Your task to perform on an android device: Go to CNN.com Image 0: 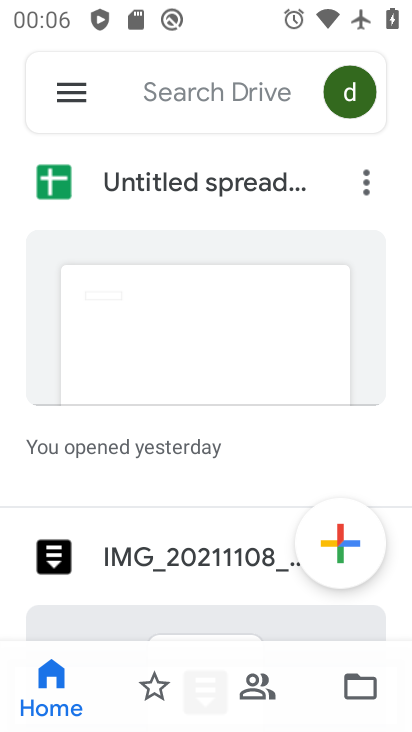
Step 0: press home button
Your task to perform on an android device: Go to CNN.com Image 1: 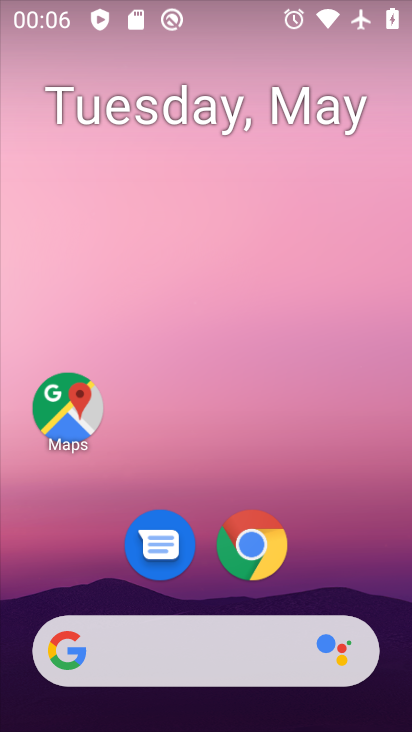
Step 1: click (248, 537)
Your task to perform on an android device: Go to CNN.com Image 2: 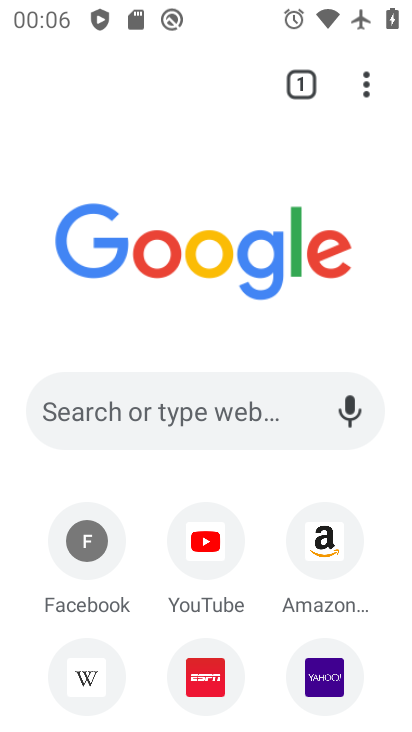
Step 2: click (200, 406)
Your task to perform on an android device: Go to CNN.com Image 3: 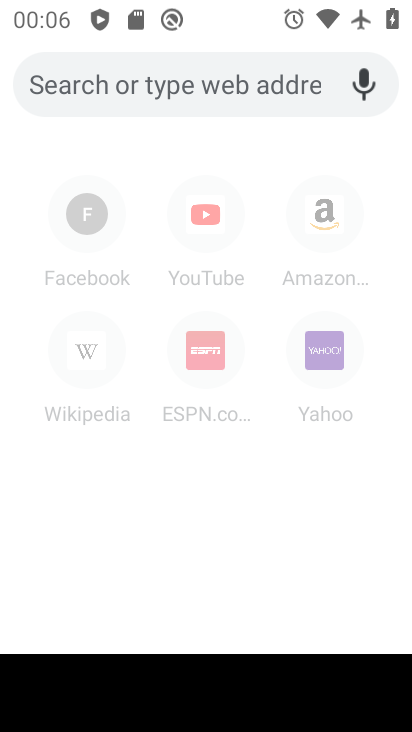
Step 3: type "CNN.com"
Your task to perform on an android device: Go to CNN.com Image 4: 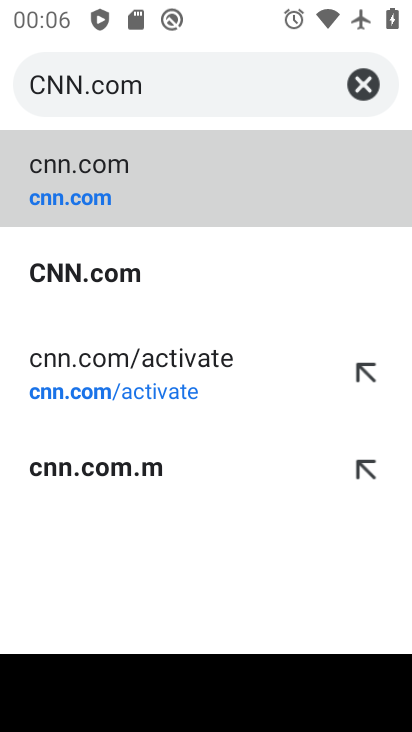
Step 4: click (52, 173)
Your task to perform on an android device: Go to CNN.com Image 5: 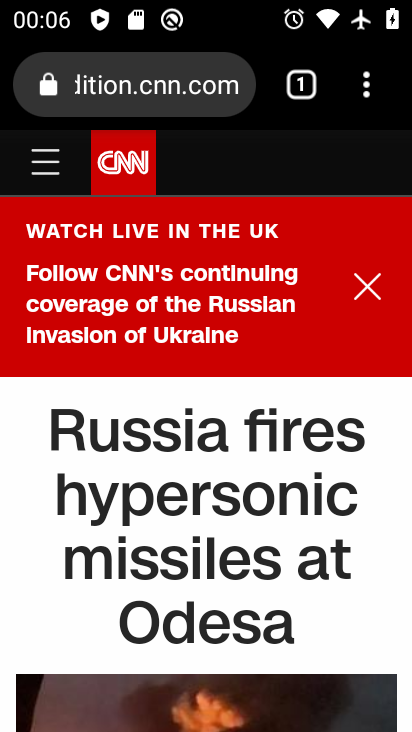
Step 5: task complete